Your task to perform on an android device: turn pop-ups on in chrome Image 0: 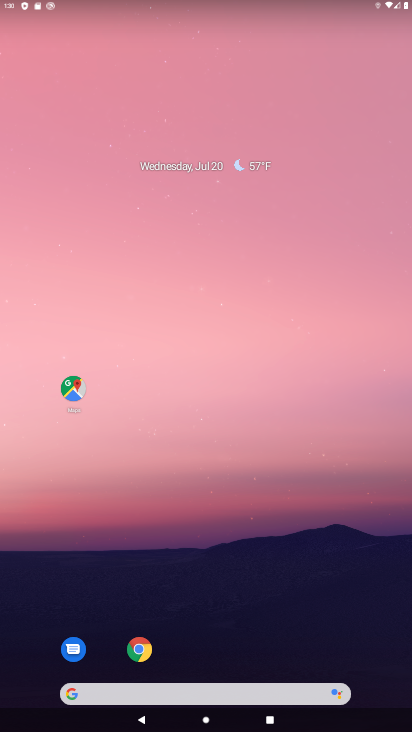
Step 0: click (142, 656)
Your task to perform on an android device: turn pop-ups on in chrome Image 1: 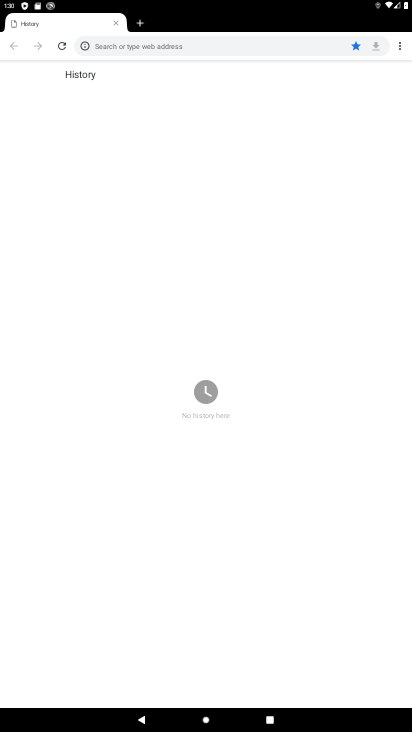
Step 1: click (396, 45)
Your task to perform on an android device: turn pop-ups on in chrome Image 2: 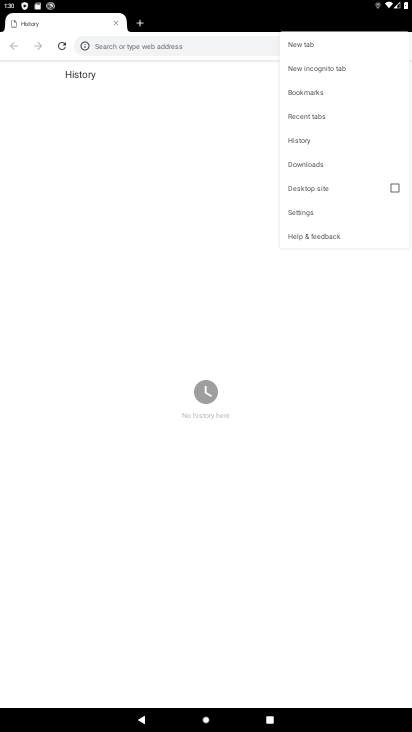
Step 2: click (299, 209)
Your task to perform on an android device: turn pop-ups on in chrome Image 3: 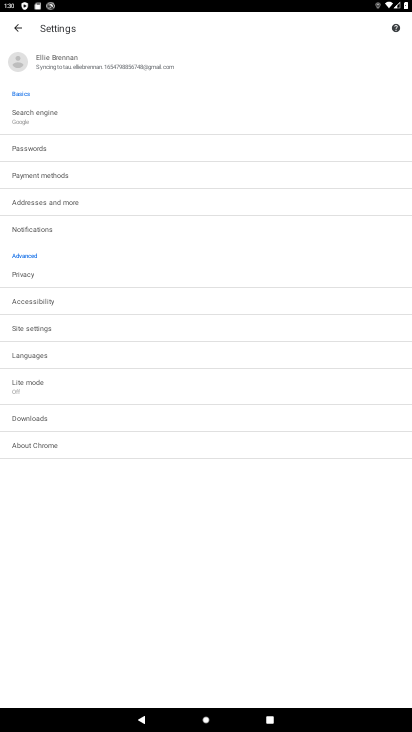
Step 3: click (72, 333)
Your task to perform on an android device: turn pop-ups on in chrome Image 4: 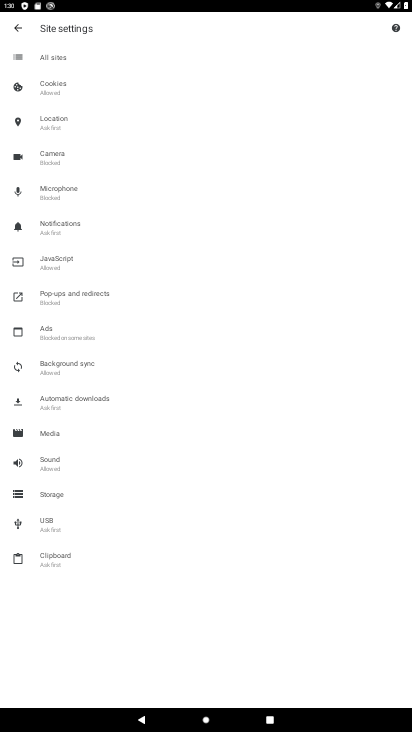
Step 4: click (77, 295)
Your task to perform on an android device: turn pop-ups on in chrome Image 5: 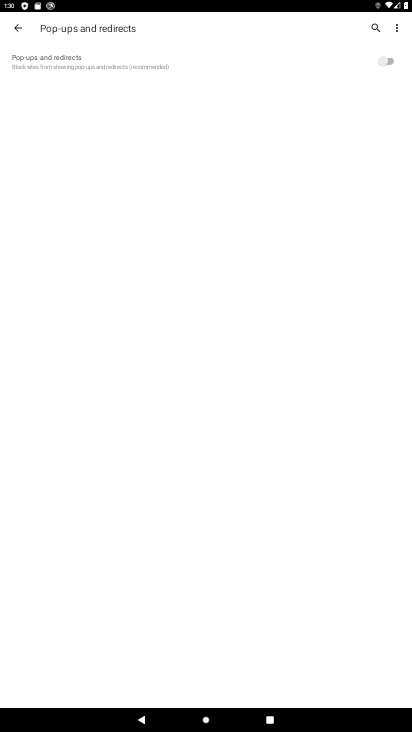
Step 5: click (394, 61)
Your task to perform on an android device: turn pop-ups on in chrome Image 6: 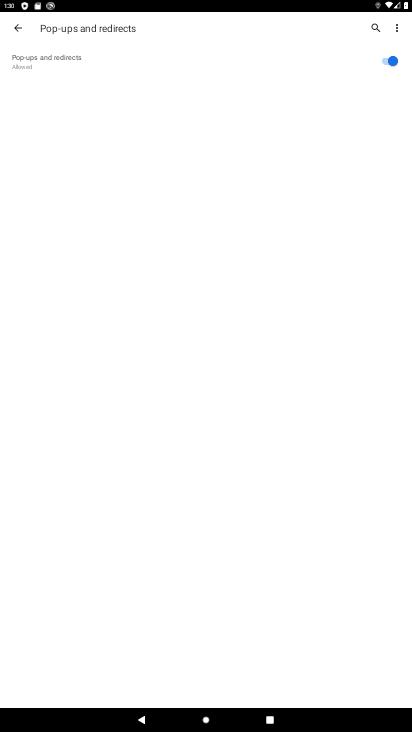
Step 6: task complete